Your task to perform on an android device: Find the nearest electronics store that's open now Image 0: 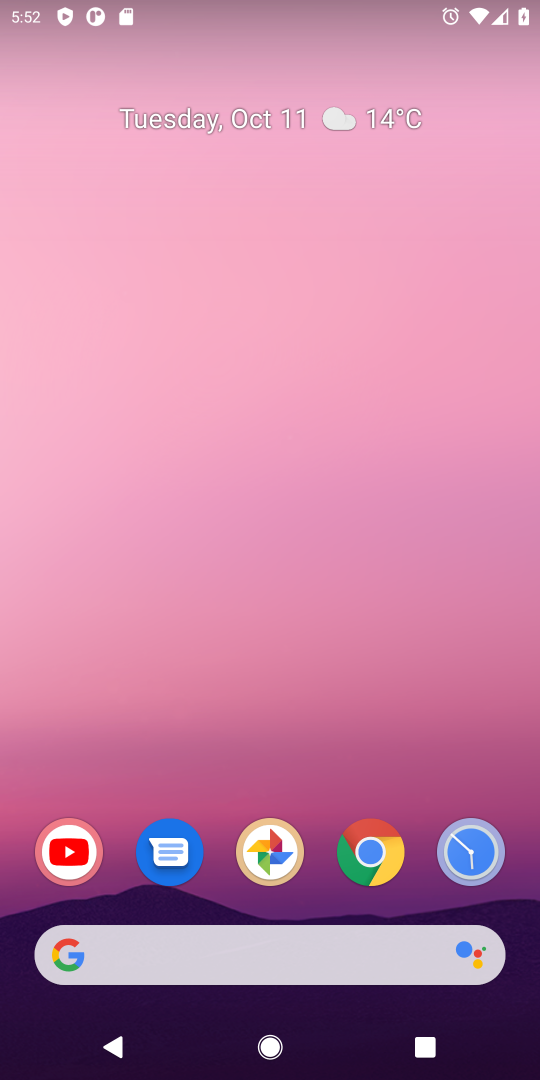
Step 0: click (389, 859)
Your task to perform on an android device: Find the nearest electronics store that's open now Image 1: 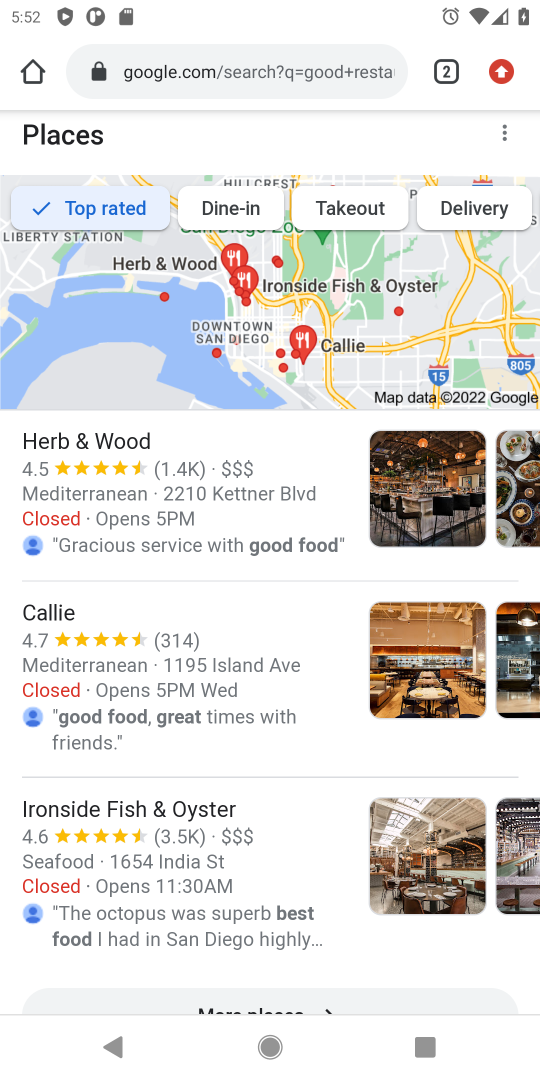
Step 1: click (256, 70)
Your task to perform on an android device: Find the nearest electronics store that's open now Image 2: 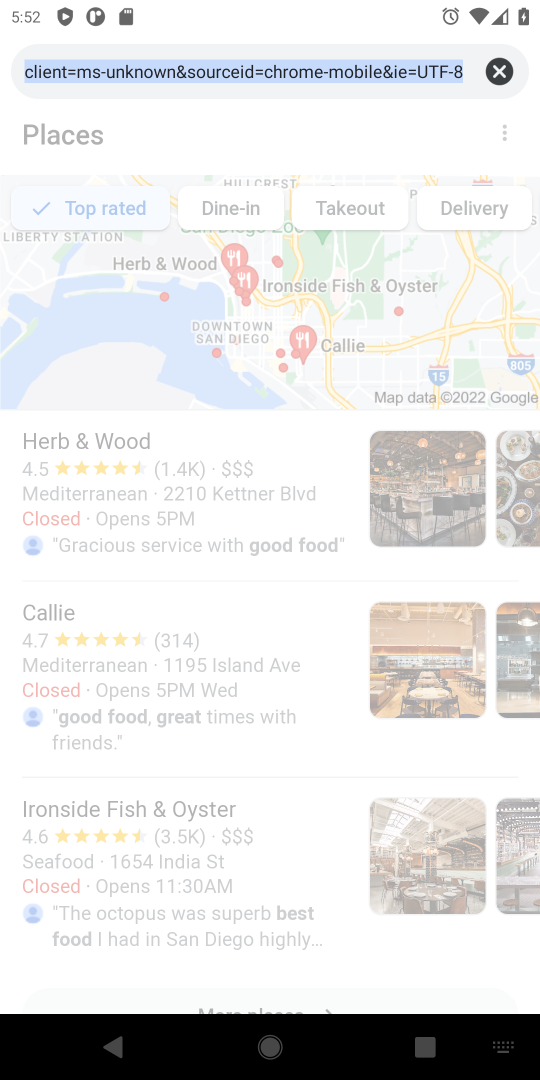
Step 2: type "nearest electronics store that's open now"
Your task to perform on an android device: Find the nearest electronics store that's open now Image 3: 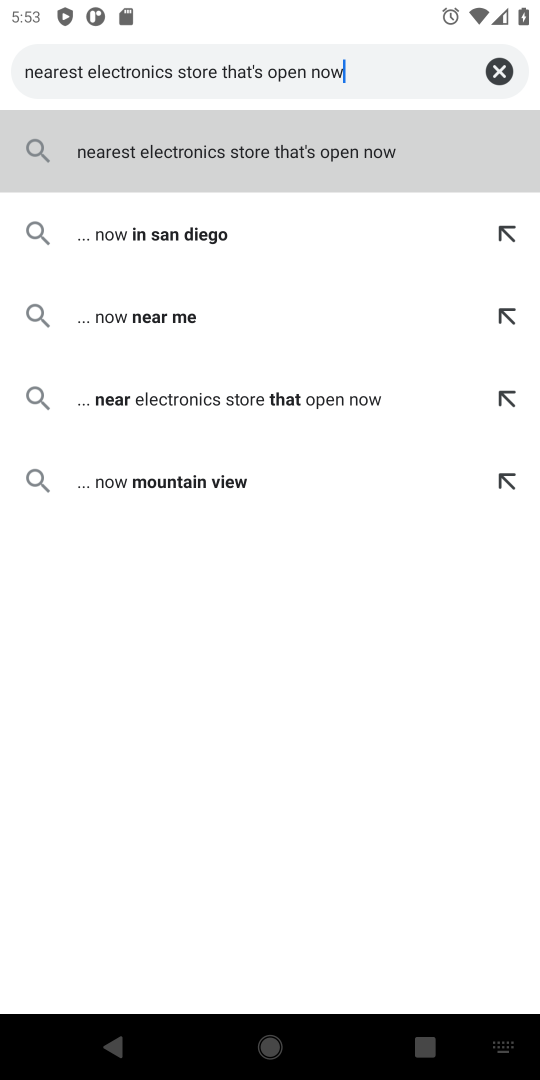
Step 3: click (212, 147)
Your task to perform on an android device: Find the nearest electronics store that's open now Image 4: 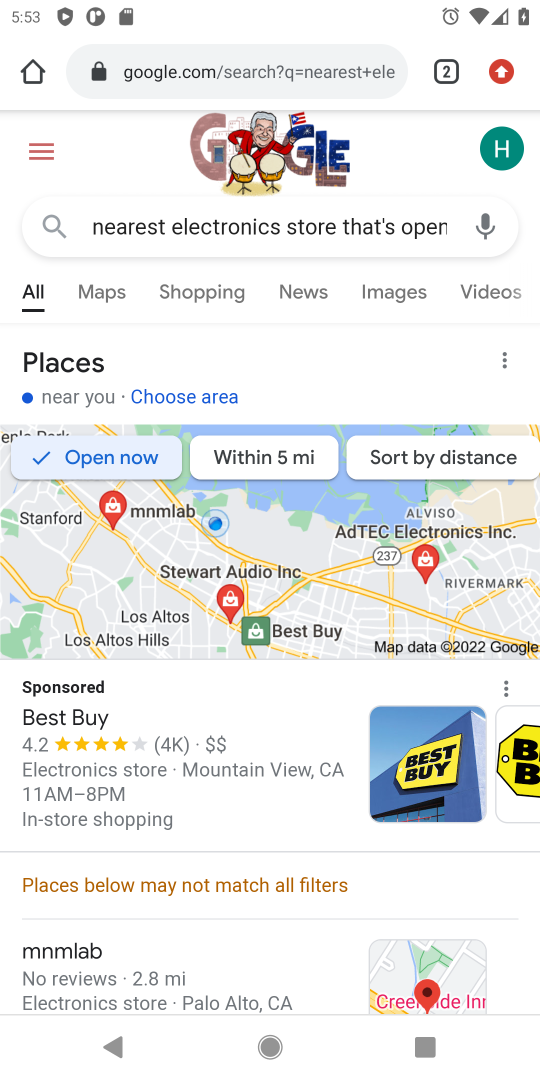
Step 4: task complete